Your task to perform on an android device: open app "Spotify" (install if not already installed) and go to login screen Image 0: 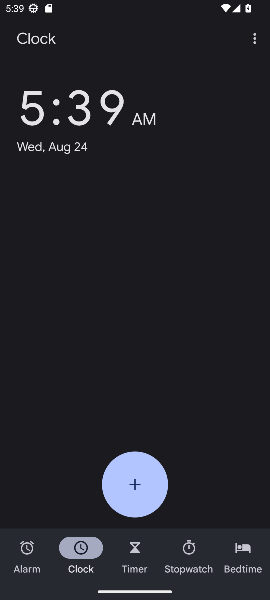
Step 0: press home button
Your task to perform on an android device: open app "Spotify" (install if not already installed) and go to login screen Image 1: 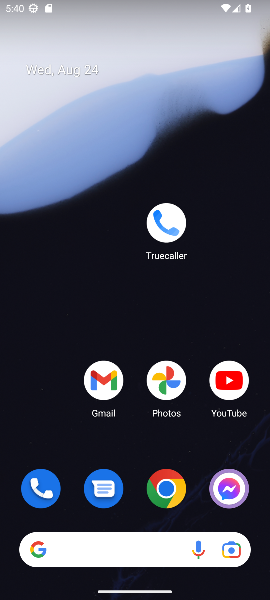
Step 1: drag from (118, 512) to (87, 105)
Your task to perform on an android device: open app "Spotify" (install if not already installed) and go to login screen Image 2: 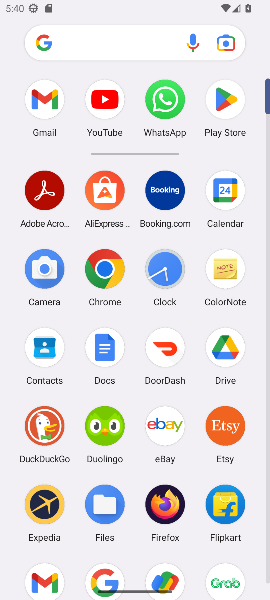
Step 2: click (238, 107)
Your task to perform on an android device: open app "Spotify" (install if not already installed) and go to login screen Image 3: 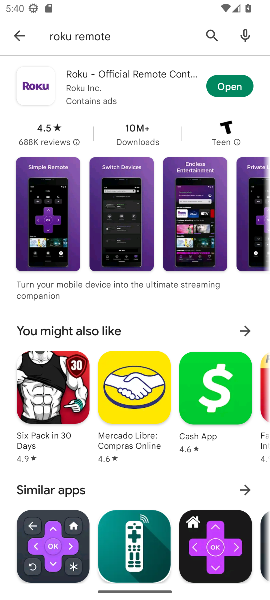
Step 3: click (219, 39)
Your task to perform on an android device: open app "Spotify" (install if not already installed) and go to login screen Image 4: 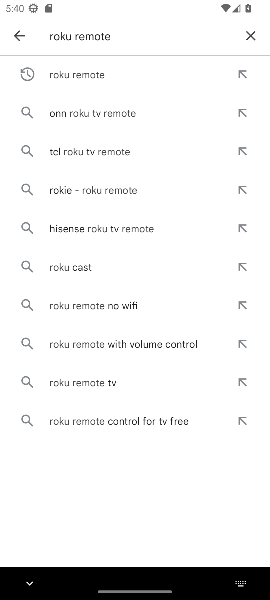
Step 4: click (247, 39)
Your task to perform on an android device: open app "Spotify" (install if not already installed) and go to login screen Image 5: 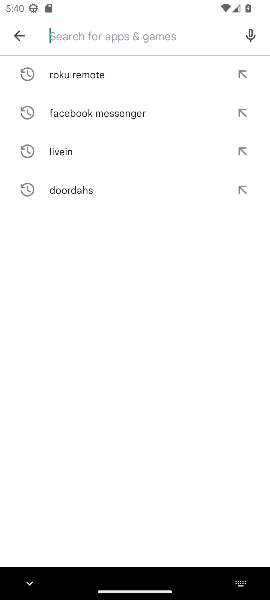
Step 5: type "spotify"
Your task to perform on an android device: open app "Spotify" (install if not already installed) and go to login screen Image 6: 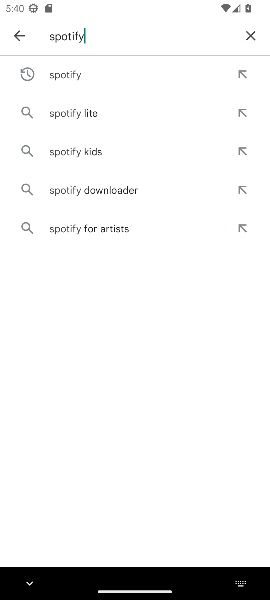
Step 6: click (118, 86)
Your task to perform on an android device: open app "Spotify" (install if not already installed) and go to login screen Image 7: 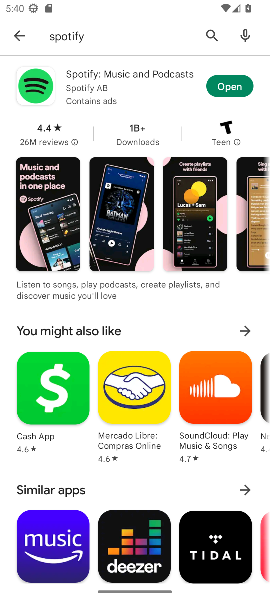
Step 7: click (231, 84)
Your task to perform on an android device: open app "Spotify" (install if not already installed) and go to login screen Image 8: 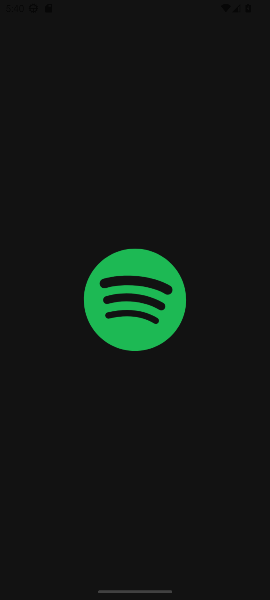
Step 8: task complete